Your task to perform on an android device: Search for the best rated mattress topper on Target. Image 0: 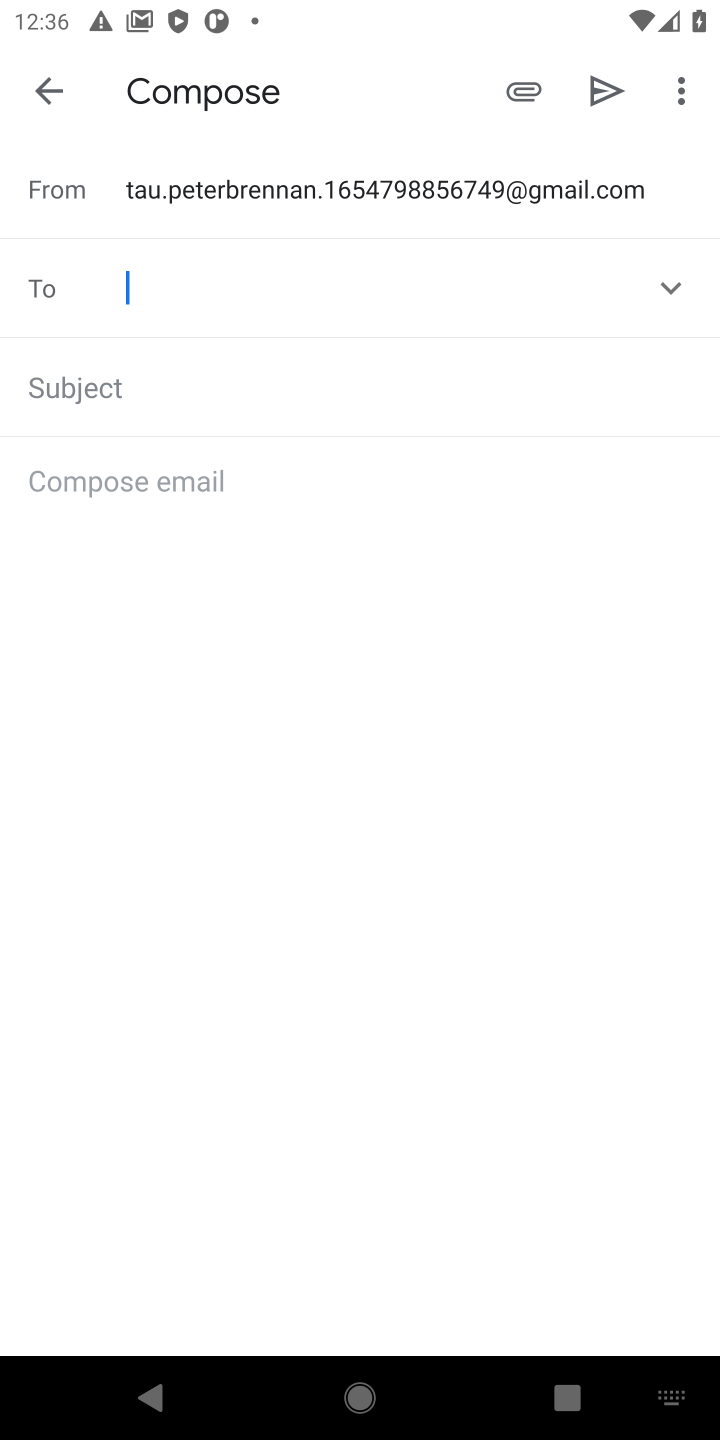
Step 0: press home button
Your task to perform on an android device: Search for the best rated mattress topper on Target. Image 1: 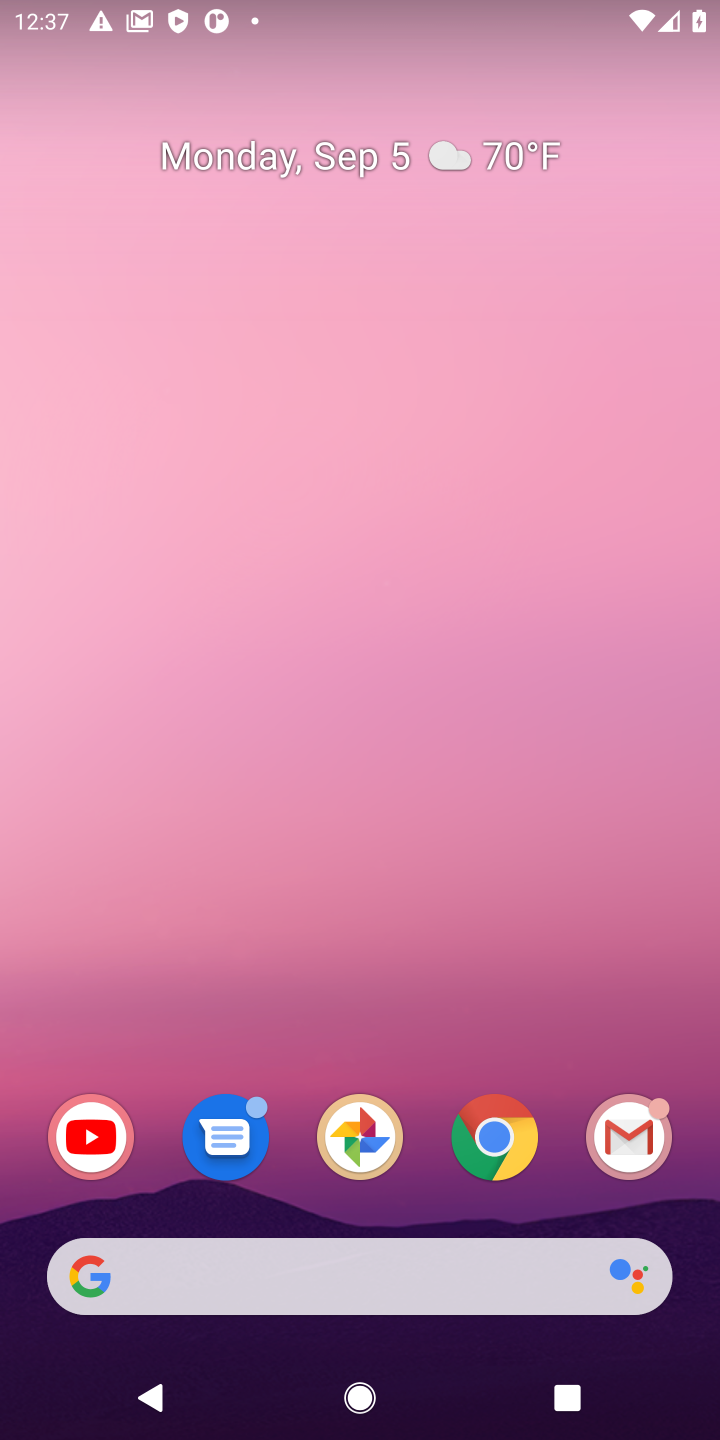
Step 1: click (504, 1142)
Your task to perform on an android device: Search for the best rated mattress topper on Target. Image 2: 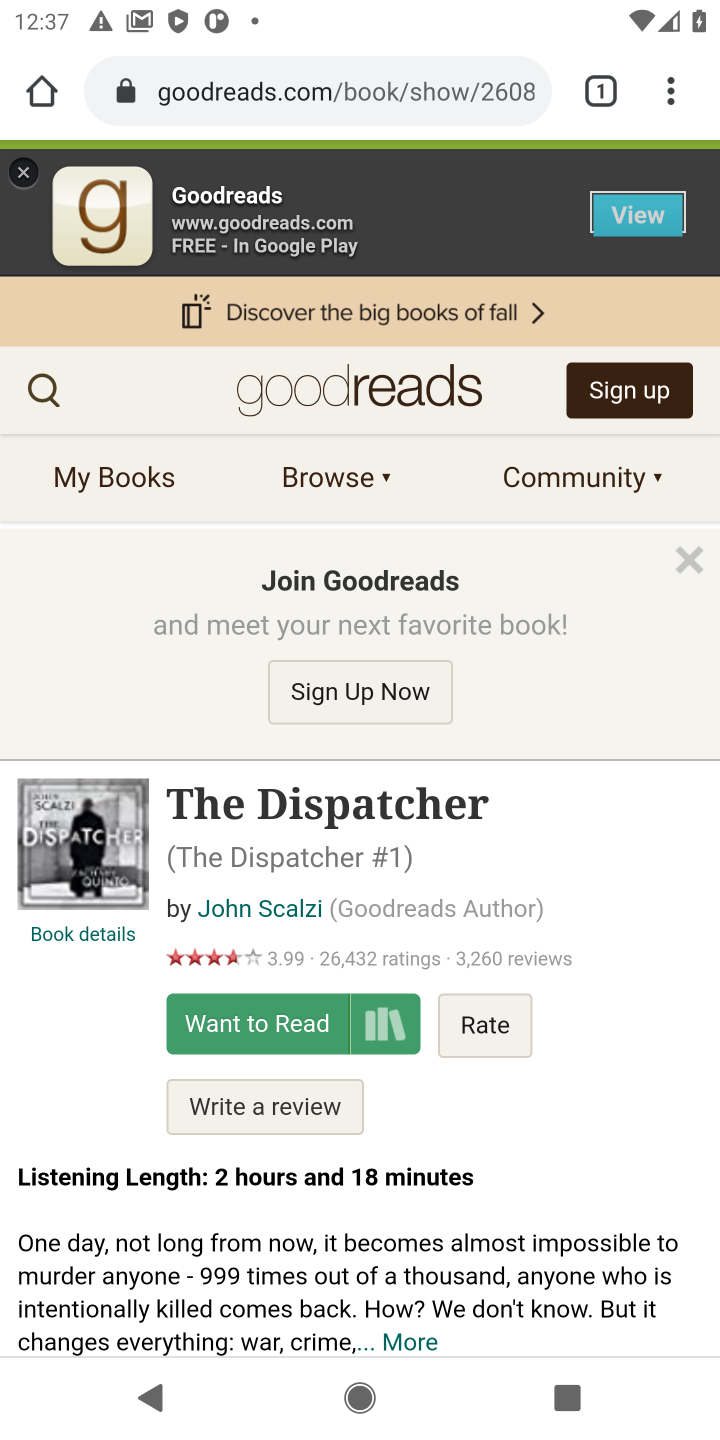
Step 2: click (332, 103)
Your task to perform on an android device: Search for the best rated mattress topper on Target. Image 3: 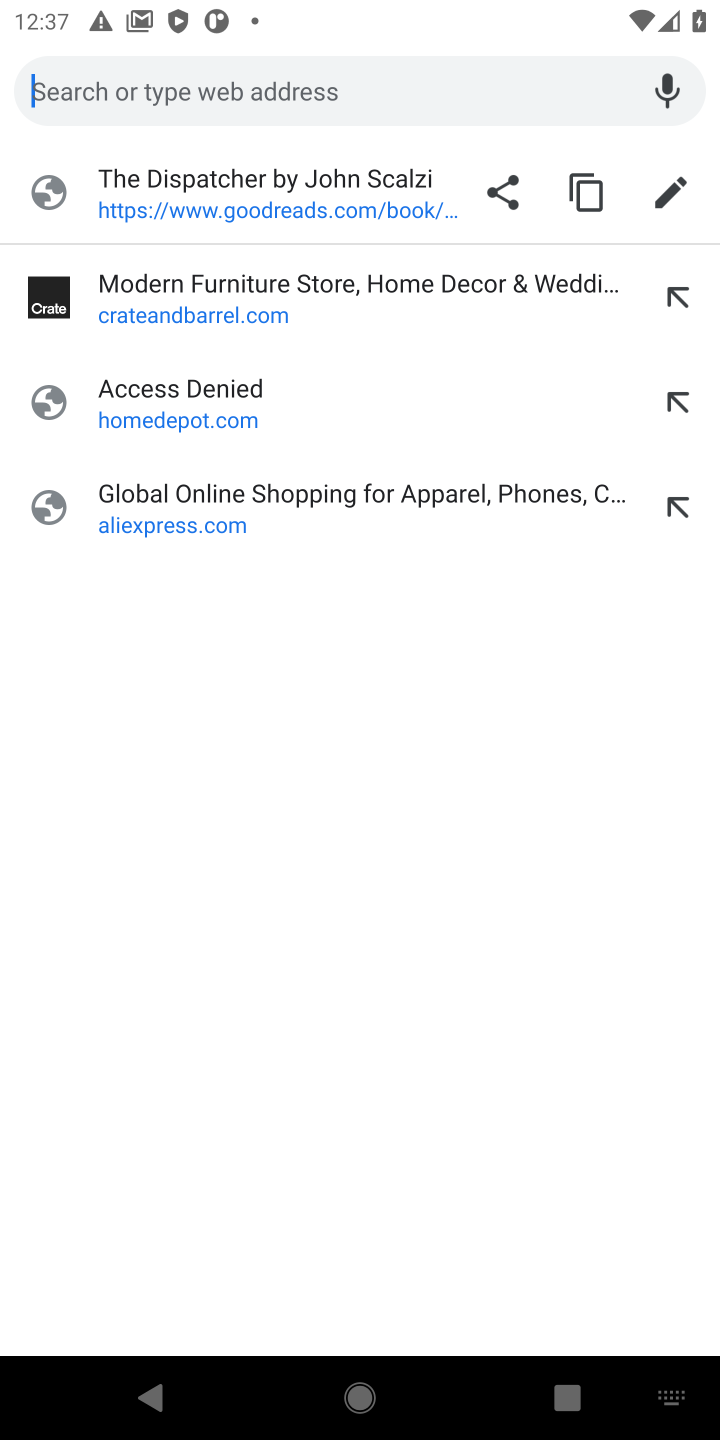
Step 3: type "target"
Your task to perform on an android device: Search for the best rated mattress topper on Target. Image 4: 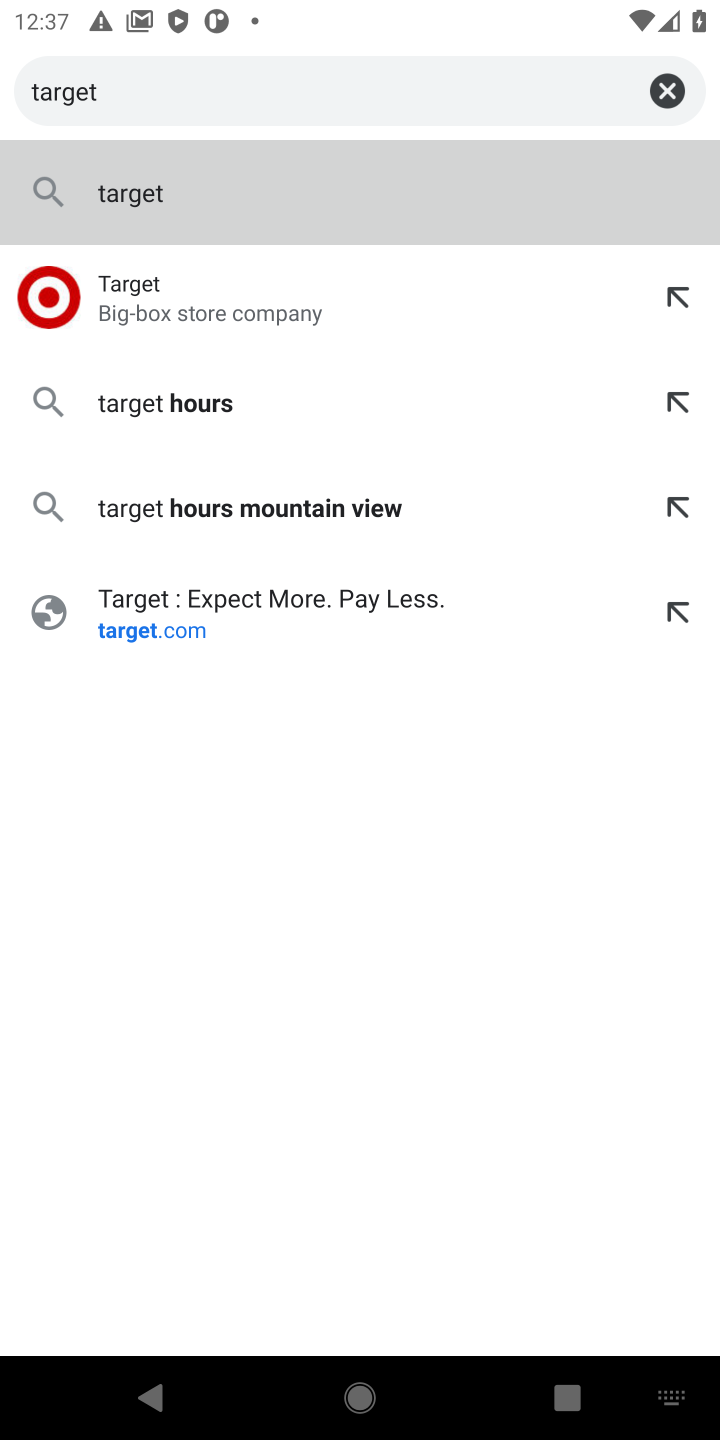
Step 4: click (325, 620)
Your task to perform on an android device: Search for the best rated mattress topper on Target. Image 5: 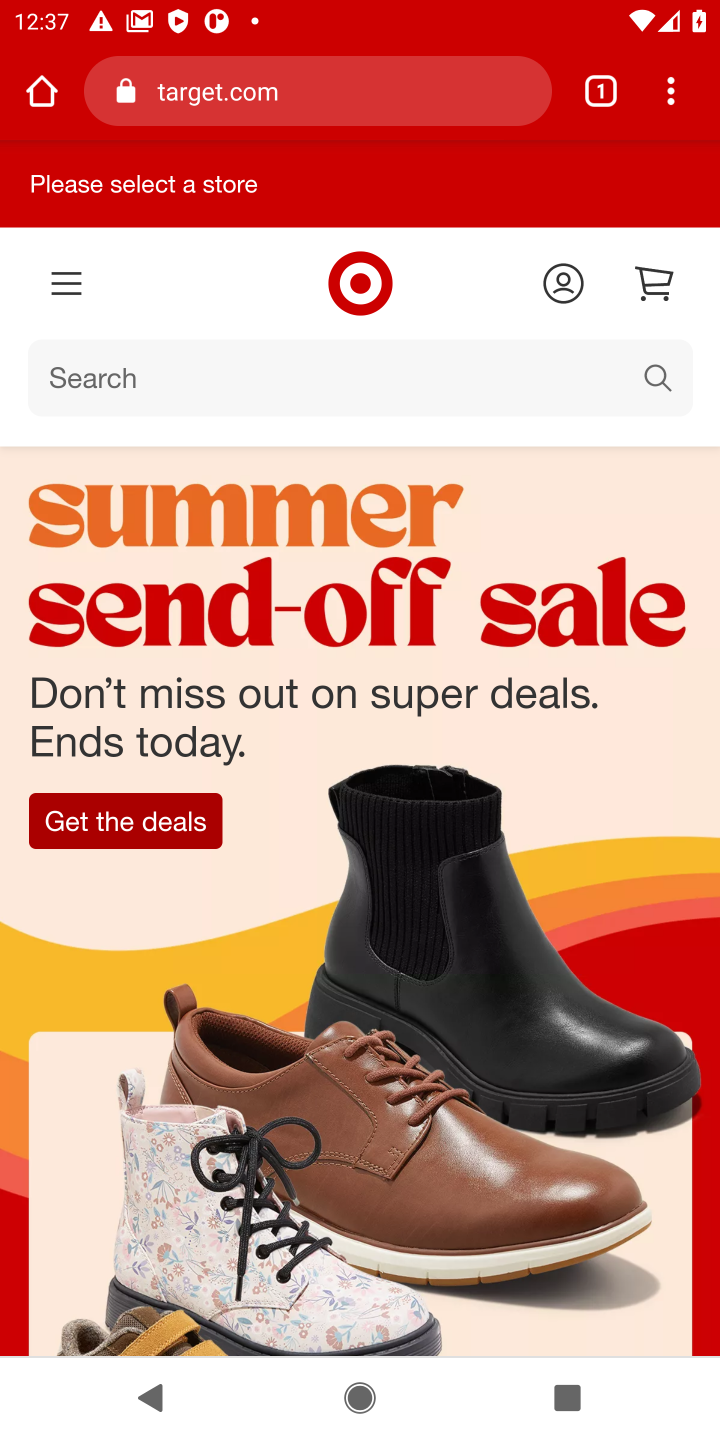
Step 5: click (231, 379)
Your task to perform on an android device: Search for the best rated mattress topper on Target. Image 6: 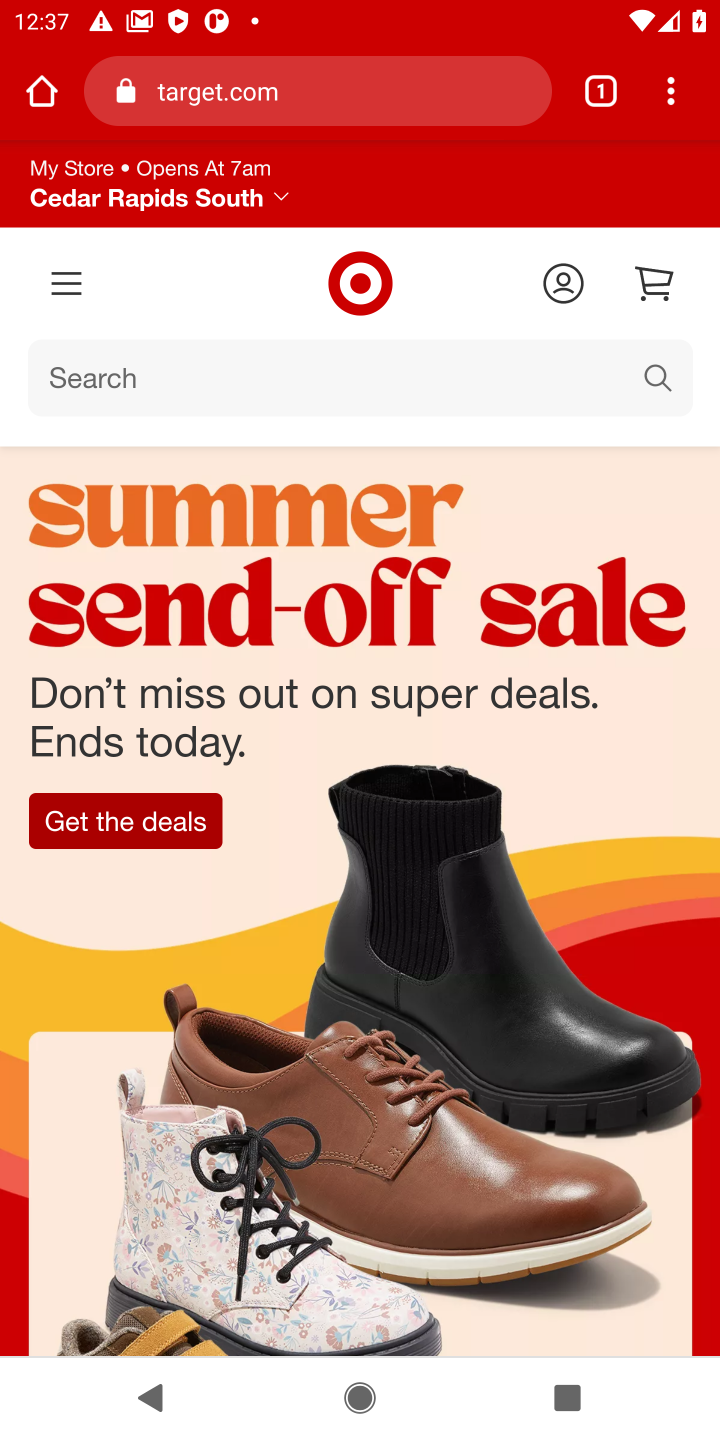
Step 6: click (470, 367)
Your task to perform on an android device: Search for the best rated mattress topper on Target. Image 7: 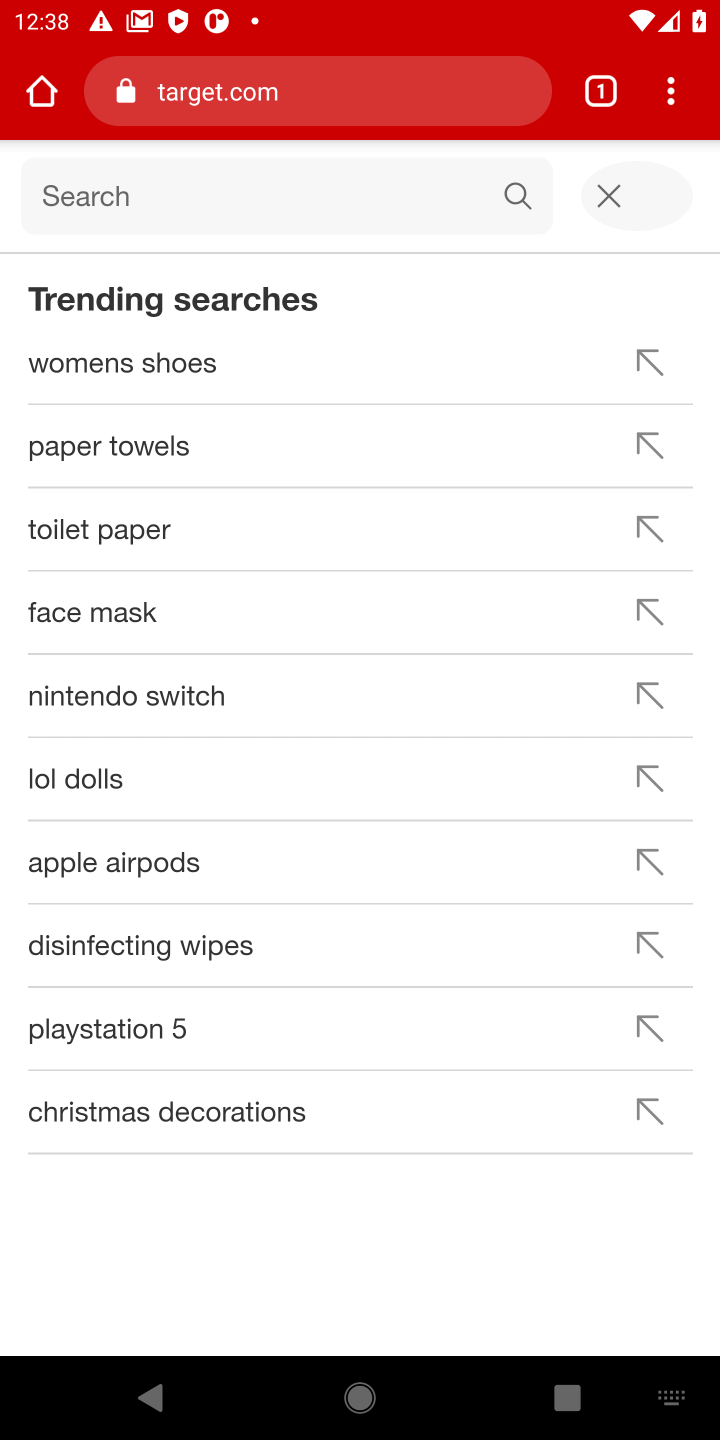
Step 7: type "best rated mattress topper"
Your task to perform on an android device: Search for the best rated mattress topper on Target. Image 8: 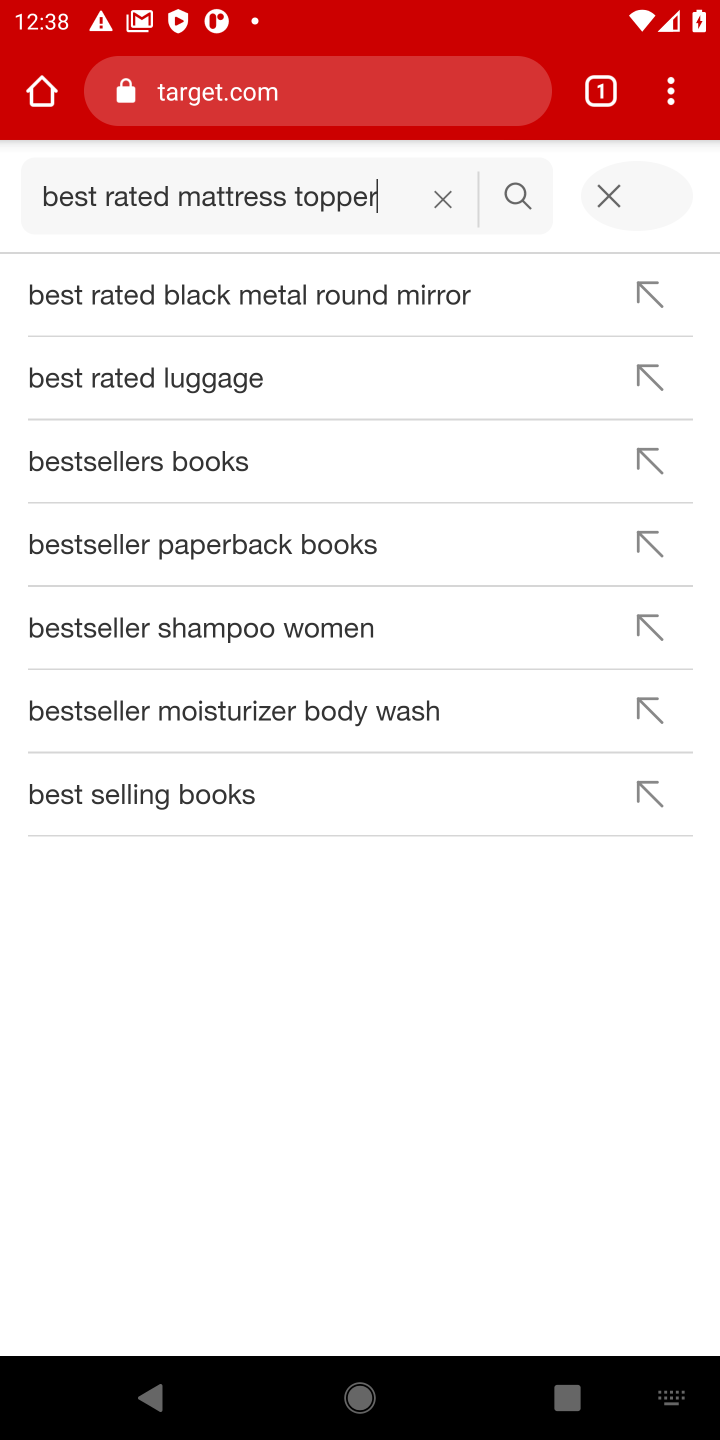
Step 8: press enter
Your task to perform on an android device: Search for the best rated mattress topper on Target. Image 9: 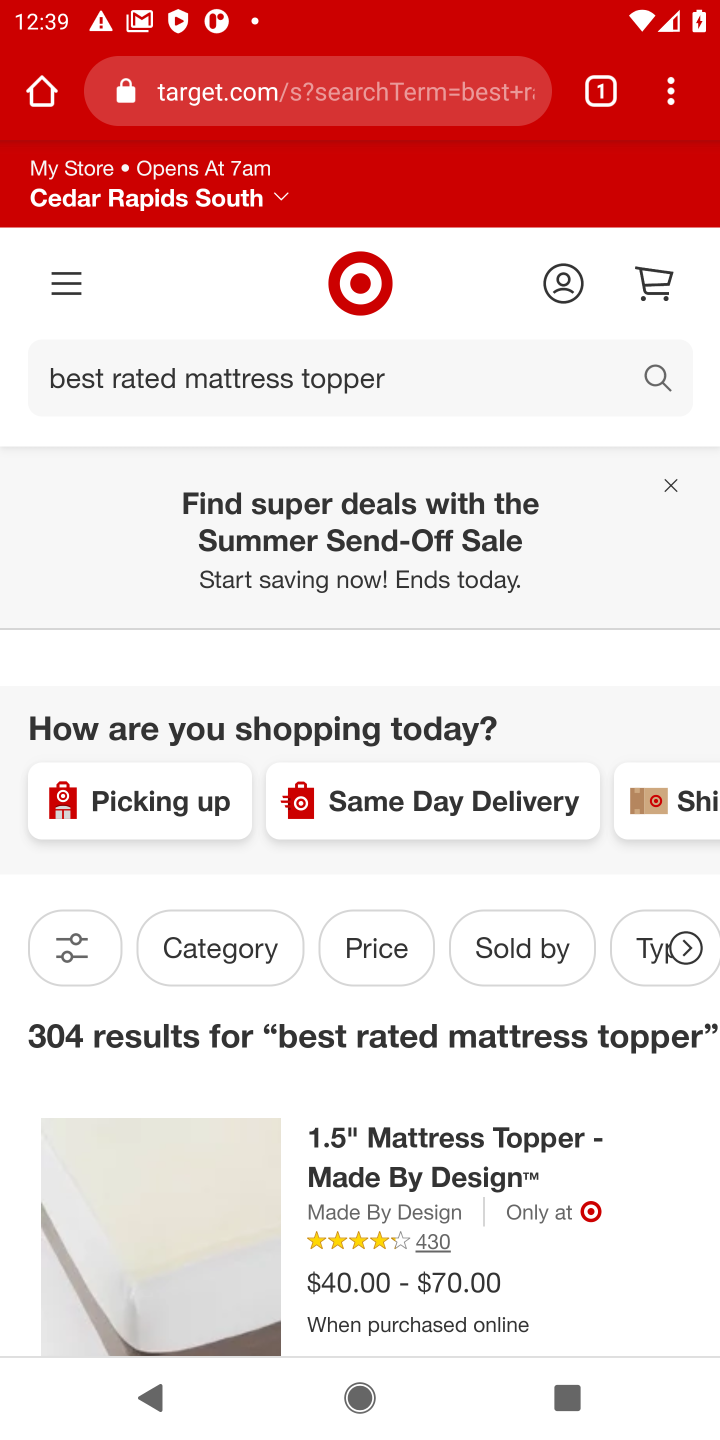
Step 9: task complete